Your task to perform on an android device: Open Google Chrome and click the shortcut for Amazon.com Image 0: 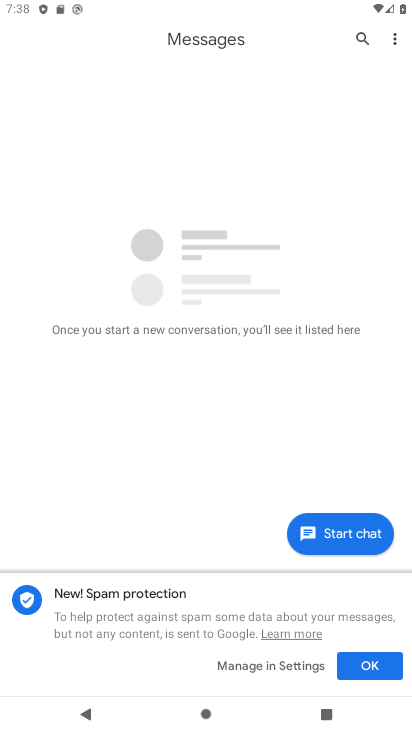
Step 0: press home button
Your task to perform on an android device: Open Google Chrome and click the shortcut for Amazon.com Image 1: 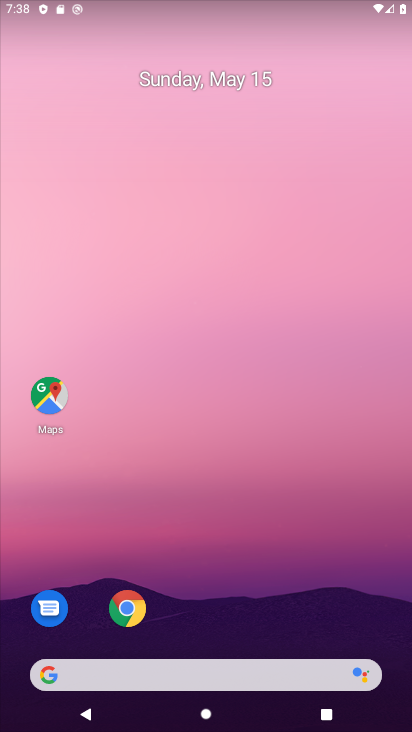
Step 1: click (130, 612)
Your task to perform on an android device: Open Google Chrome and click the shortcut for Amazon.com Image 2: 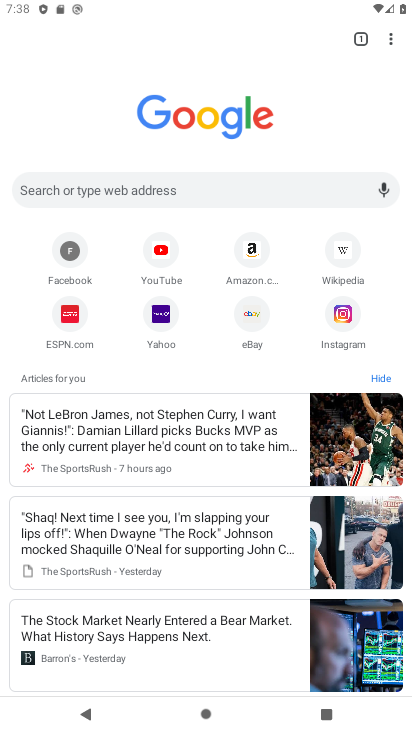
Step 2: click (257, 253)
Your task to perform on an android device: Open Google Chrome and click the shortcut for Amazon.com Image 3: 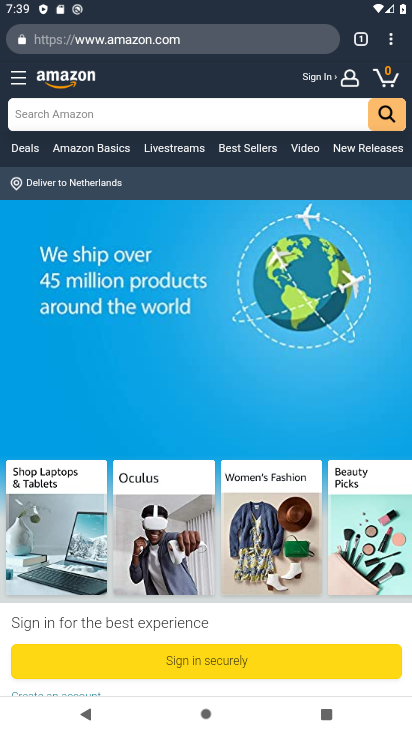
Step 3: task complete